Your task to perform on an android device: toggle javascript in the chrome app Image 0: 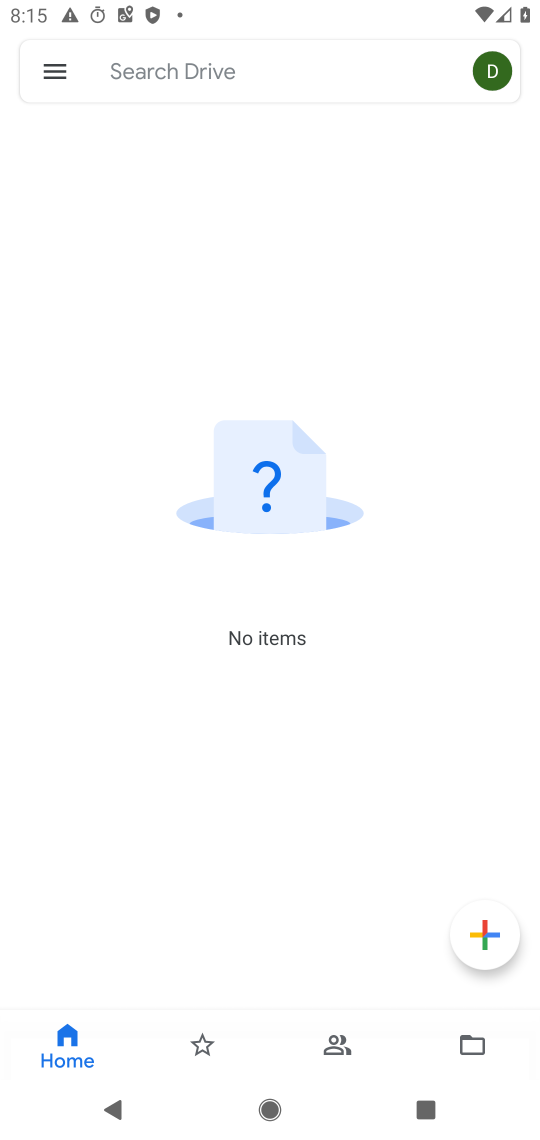
Step 0: press home button
Your task to perform on an android device: toggle javascript in the chrome app Image 1: 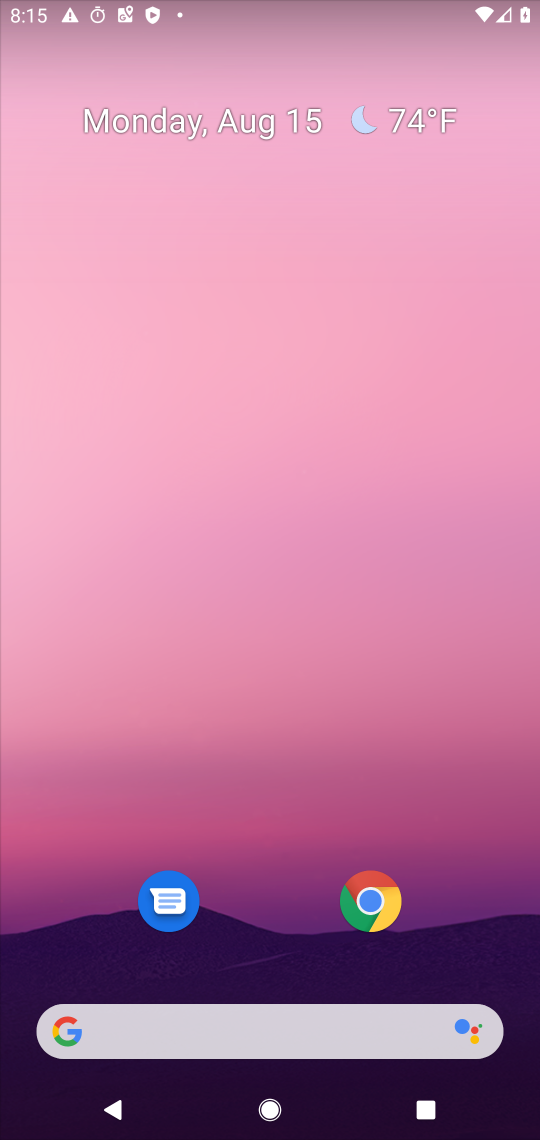
Step 1: click (381, 903)
Your task to perform on an android device: toggle javascript in the chrome app Image 2: 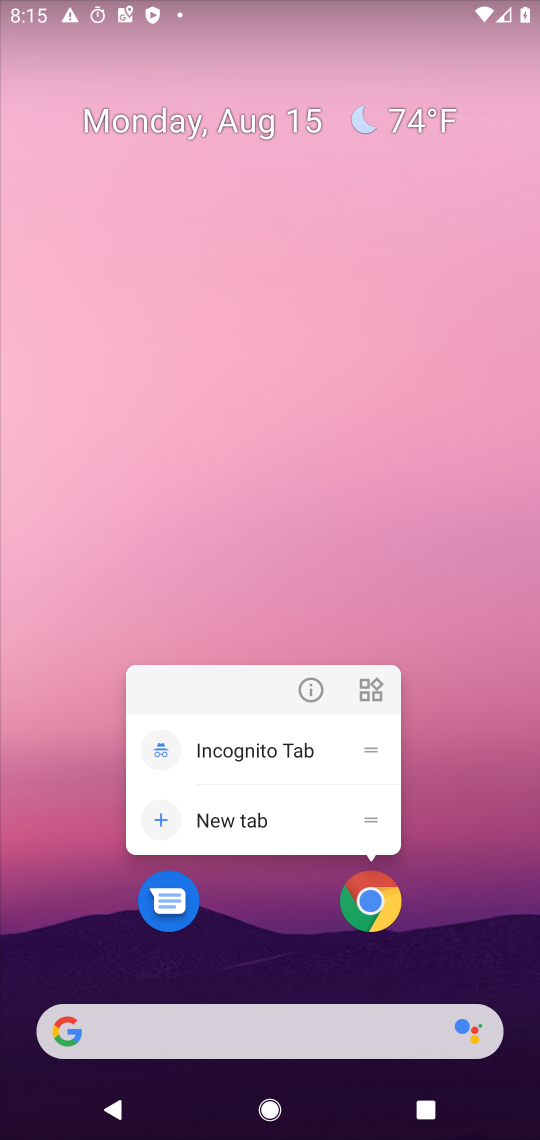
Step 2: click (379, 912)
Your task to perform on an android device: toggle javascript in the chrome app Image 3: 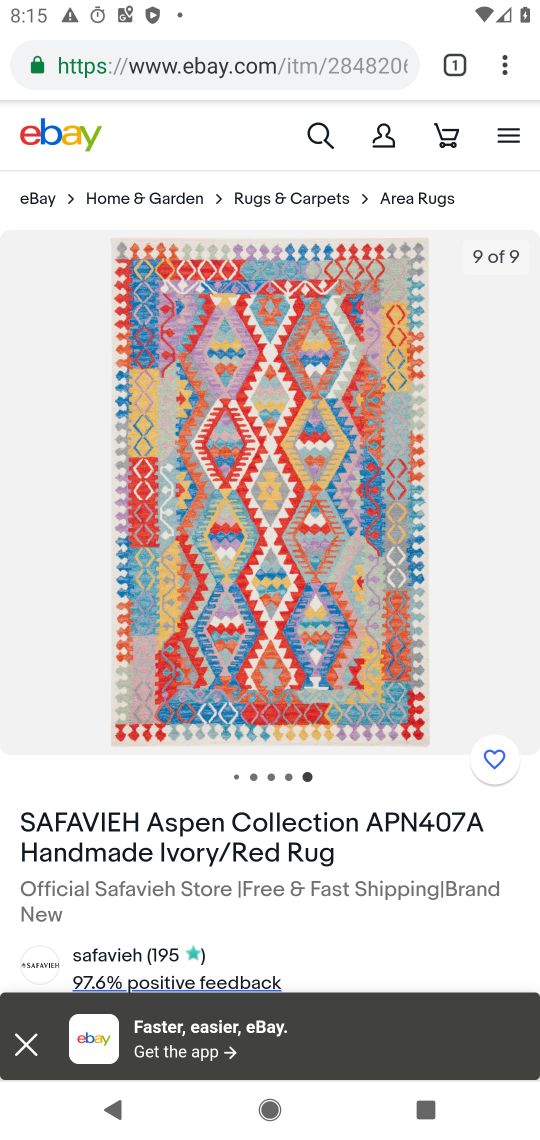
Step 3: click (505, 63)
Your task to perform on an android device: toggle javascript in the chrome app Image 4: 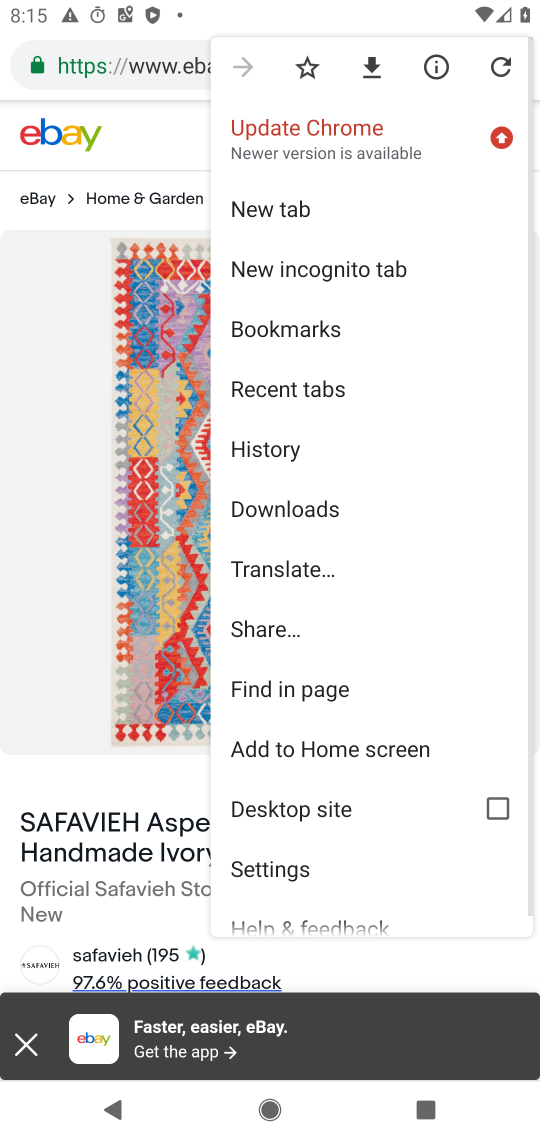
Step 4: click (282, 886)
Your task to perform on an android device: toggle javascript in the chrome app Image 5: 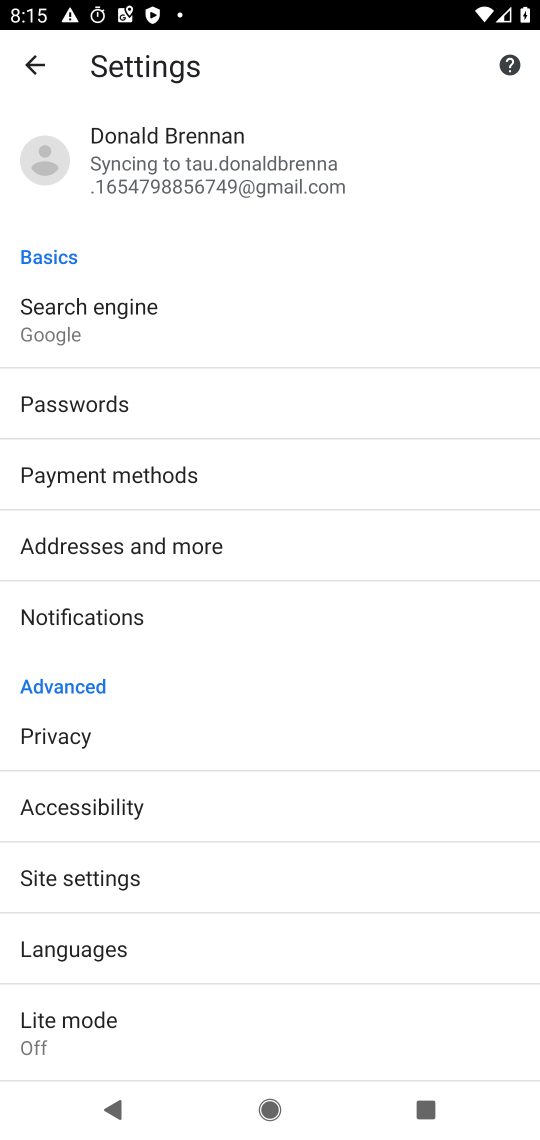
Step 5: click (104, 872)
Your task to perform on an android device: toggle javascript in the chrome app Image 6: 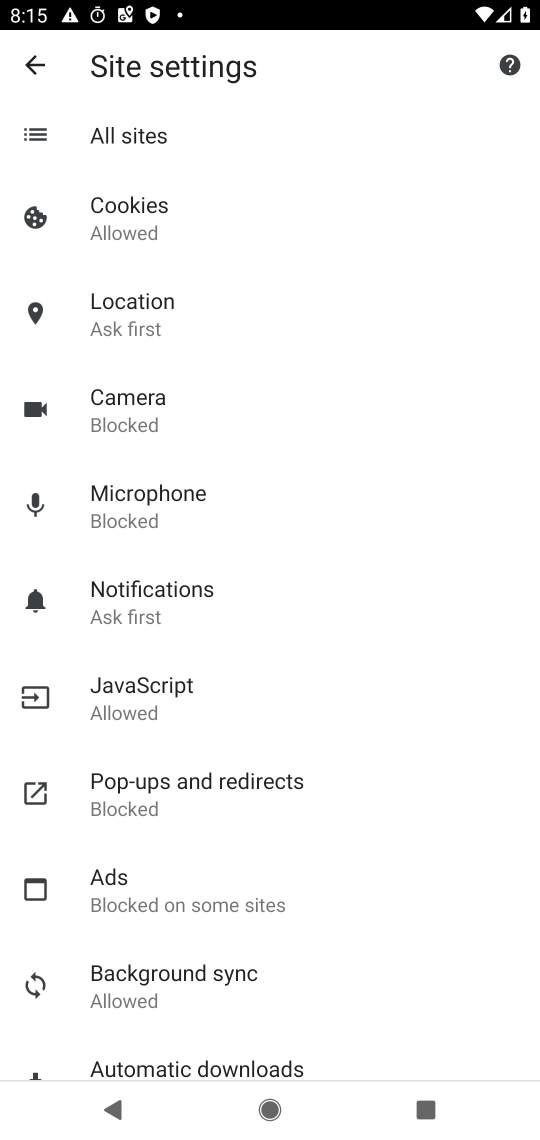
Step 6: click (149, 698)
Your task to perform on an android device: toggle javascript in the chrome app Image 7: 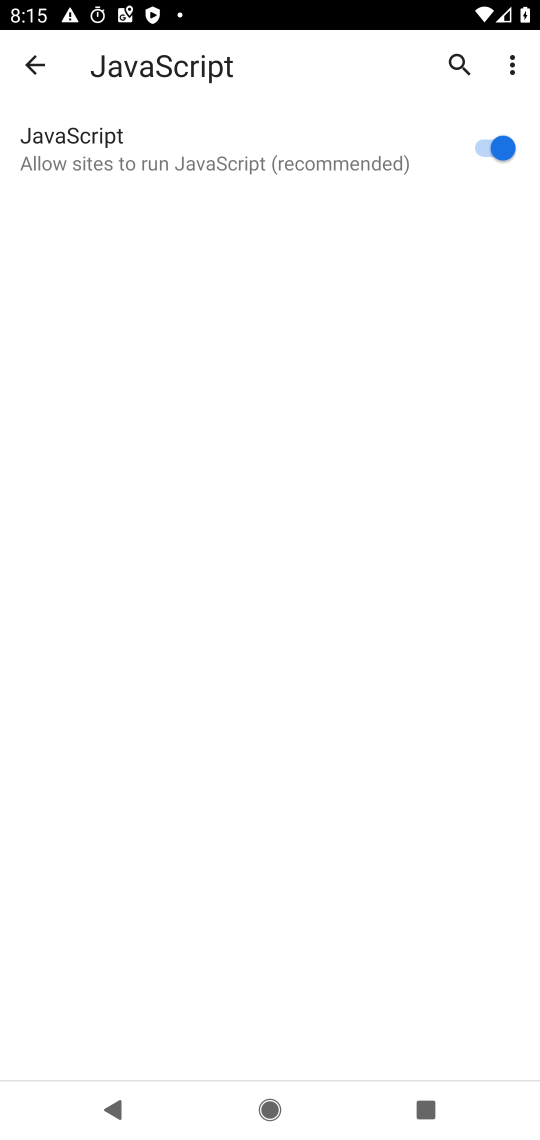
Step 7: click (454, 139)
Your task to perform on an android device: toggle javascript in the chrome app Image 8: 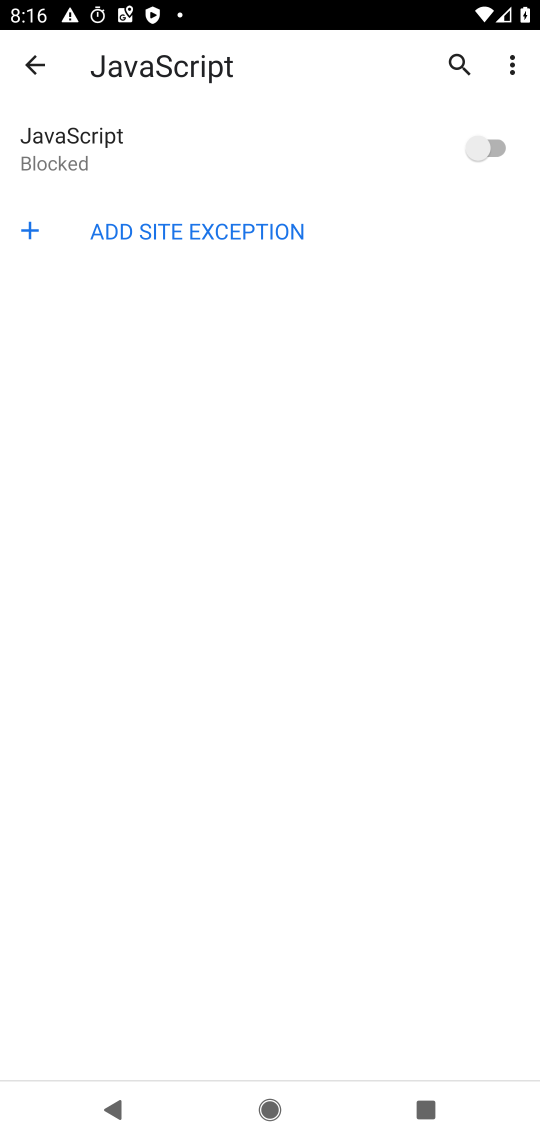
Step 8: task complete